Your task to perform on an android device: see tabs open on other devices in the chrome app Image 0: 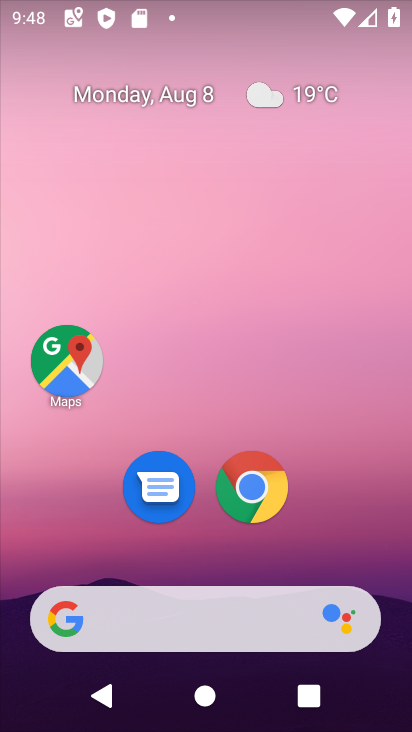
Step 0: click (250, 488)
Your task to perform on an android device: see tabs open on other devices in the chrome app Image 1: 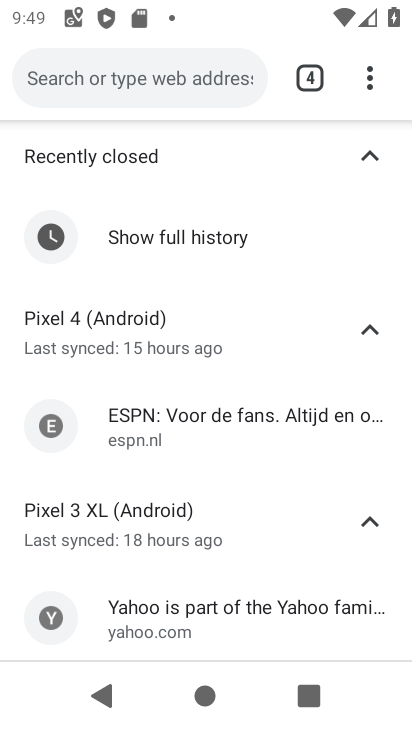
Step 1: task complete